Your task to perform on an android device: Open sound settings Image 0: 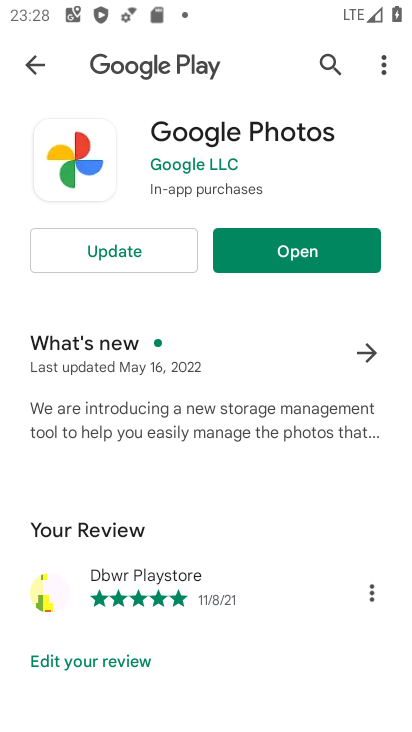
Step 0: press home button
Your task to perform on an android device: Open sound settings Image 1: 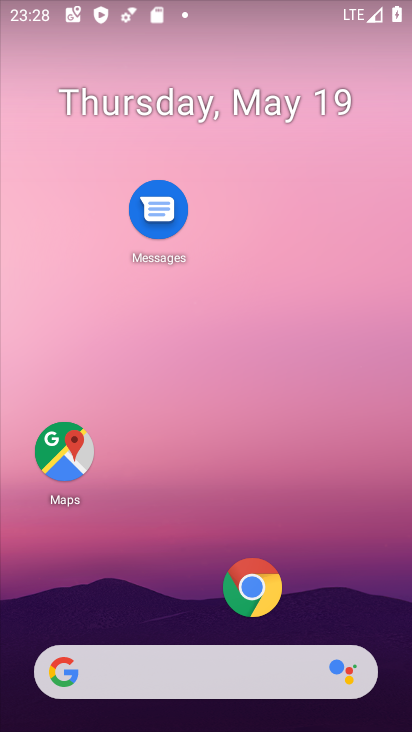
Step 1: drag from (232, 15) to (185, 586)
Your task to perform on an android device: Open sound settings Image 2: 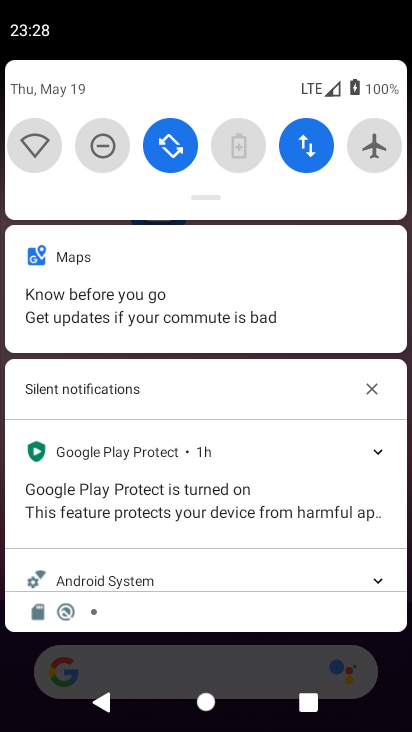
Step 2: drag from (223, 287) to (179, 614)
Your task to perform on an android device: Open sound settings Image 3: 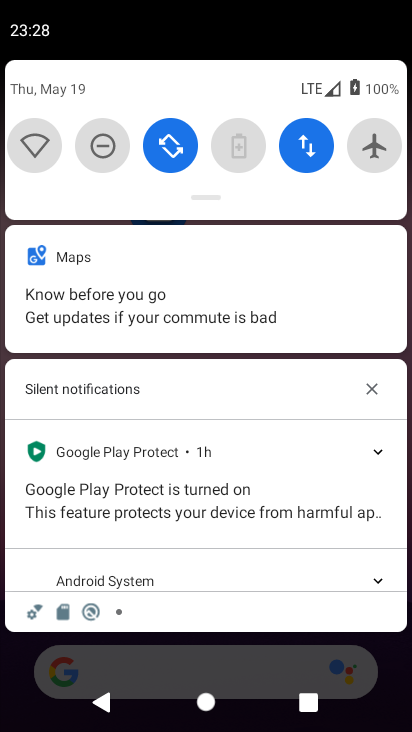
Step 3: drag from (195, 90) to (79, 664)
Your task to perform on an android device: Open sound settings Image 4: 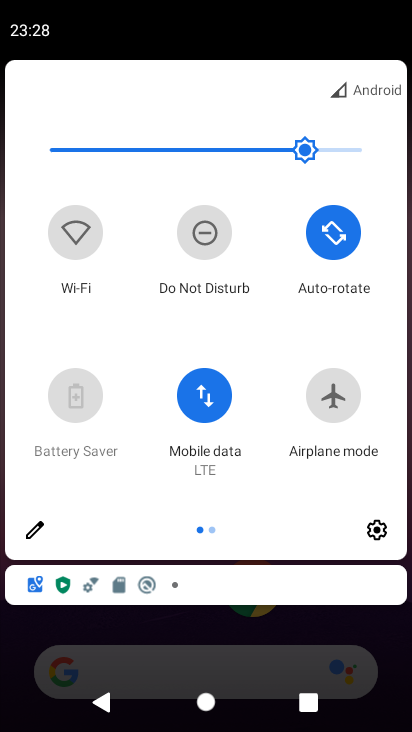
Step 4: click (381, 535)
Your task to perform on an android device: Open sound settings Image 5: 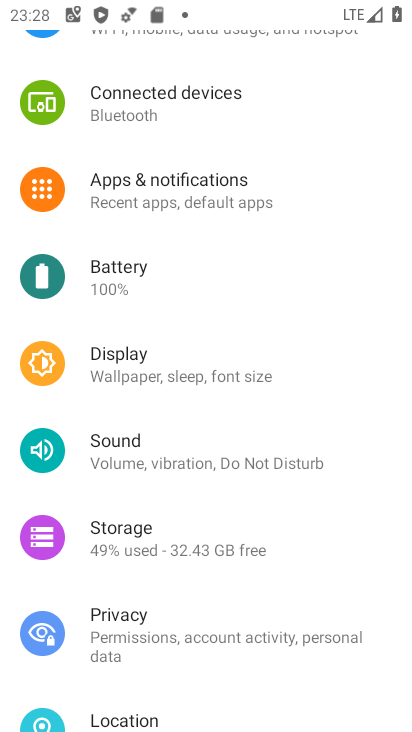
Step 5: click (129, 458)
Your task to perform on an android device: Open sound settings Image 6: 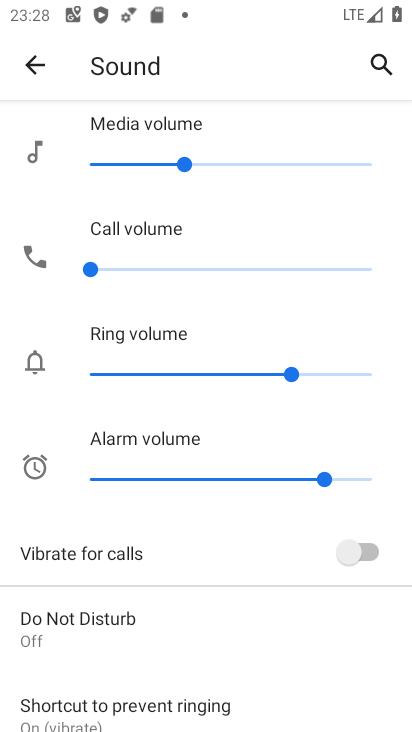
Step 6: task complete